Your task to perform on an android device: When is my next appointment? Image 0: 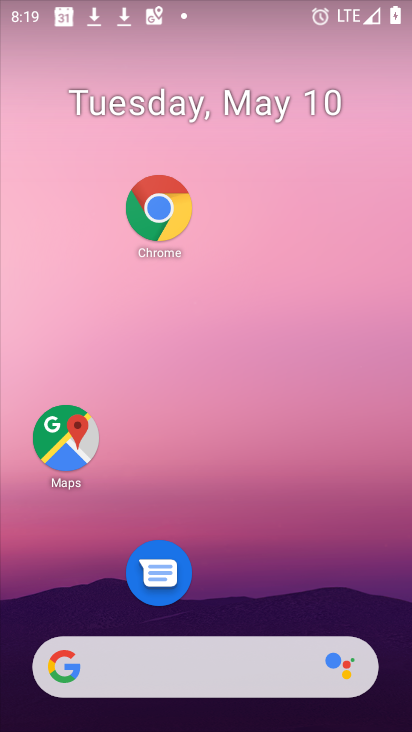
Step 0: drag from (308, 694) to (271, 118)
Your task to perform on an android device: When is my next appointment? Image 1: 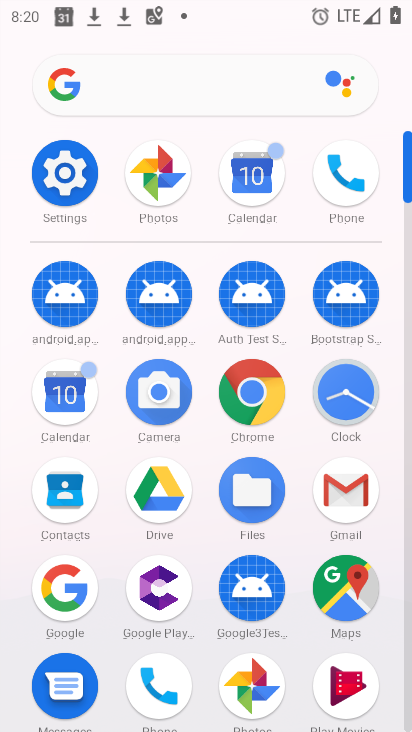
Step 1: click (54, 401)
Your task to perform on an android device: When is my next appointment? Image 2: 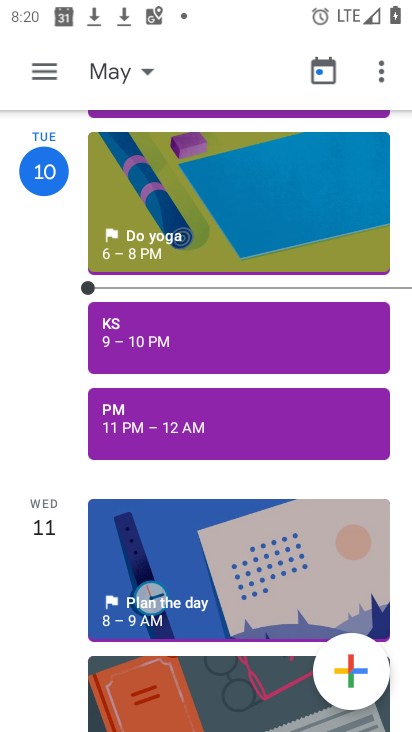
Step 2: task complete